Your task to perform on an android device: turn on data saver in the chrome app Image 0: 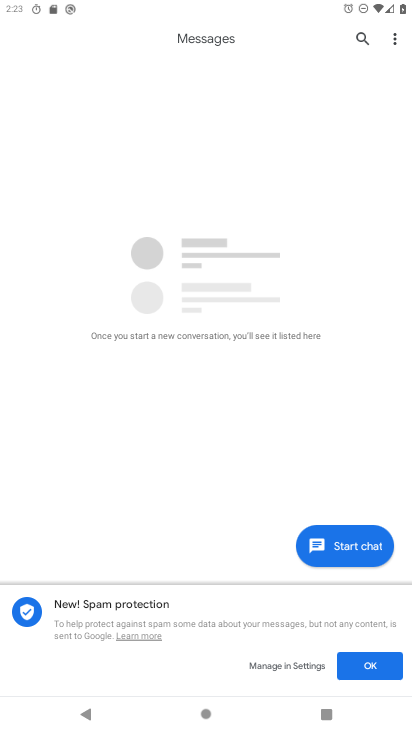
Step 0: press home button
Your task to perform on an android device: turn on data saver in the chrome app Image 1: 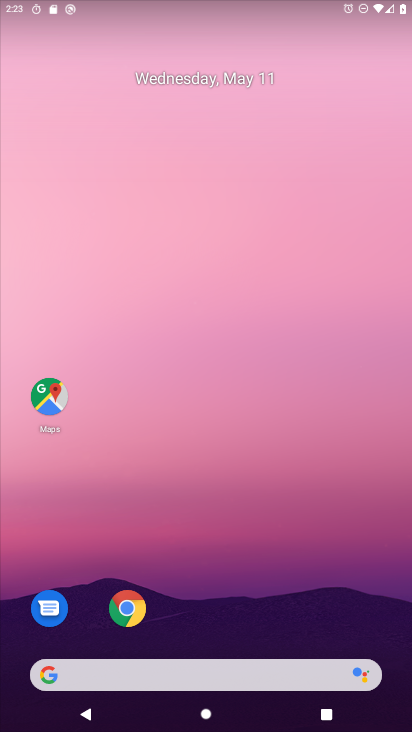
Step 1: drag from (269, 571) to (348, 46)
Your task to perform on an android device: turn on data saver in the chrome app Image 2: 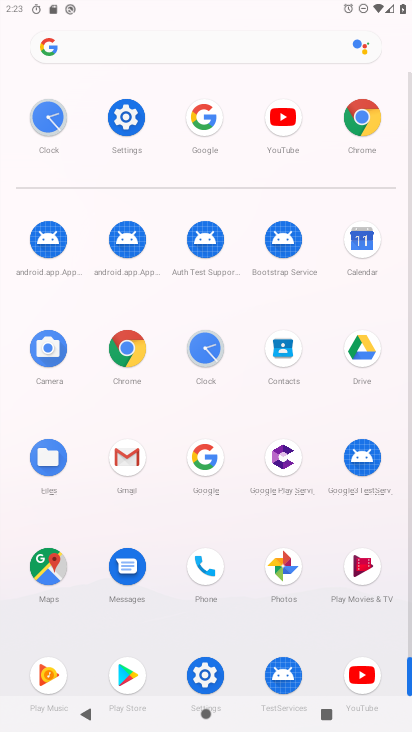
Step 2: click (369, 128)
Your task to perform on an android device: turn on data saver in the chrome app Image 3: 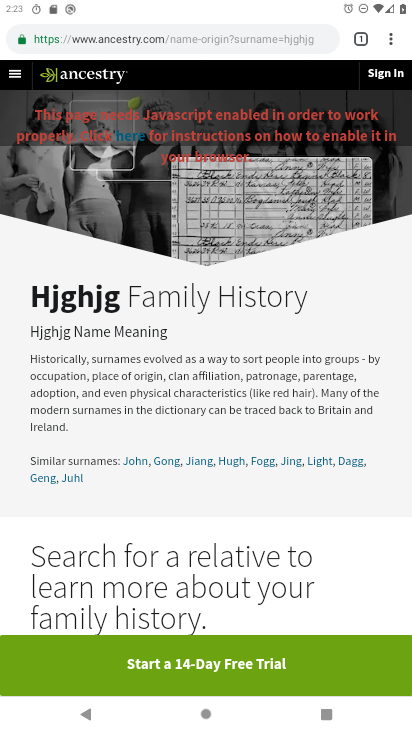
Step 3: click (388, 43)
Your task to perform on an android device: turn on data saver in the chrome app Image 4: 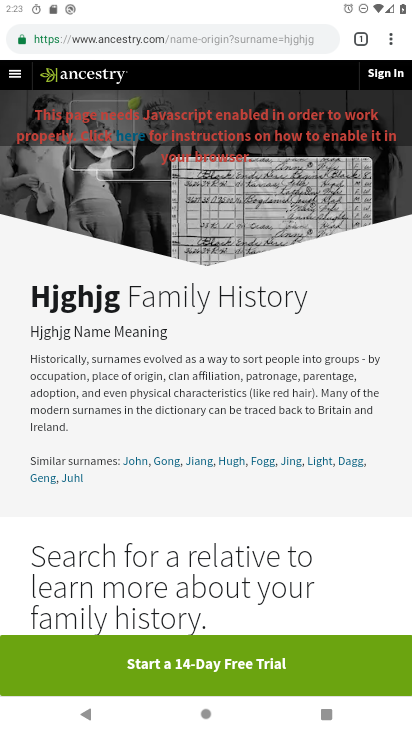
Step 4: click (388, 43)
Your task to perform on an android device: turn on data saver in the chrome app Image 5: 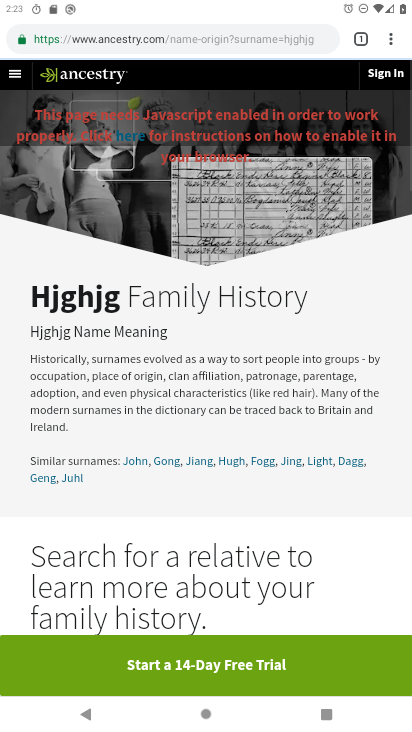
Step 5: click (396, 43)
Your task to perform on an android device: turn on data saver in the chrome app Image 6: 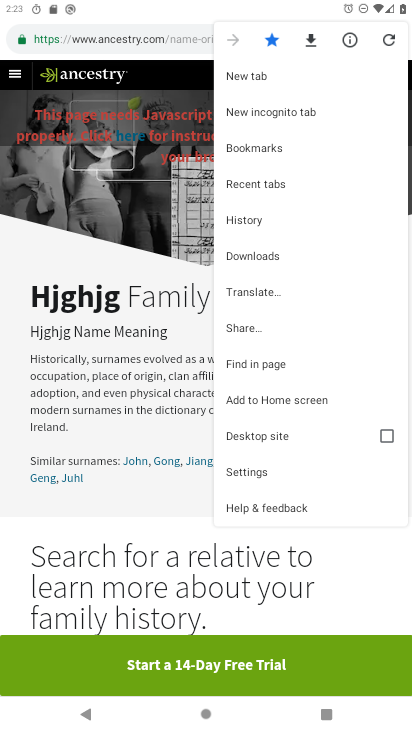
Step 6: click (259, 469)
Your task to perform on an android device: turn on data saver in the chrome app Image 7: 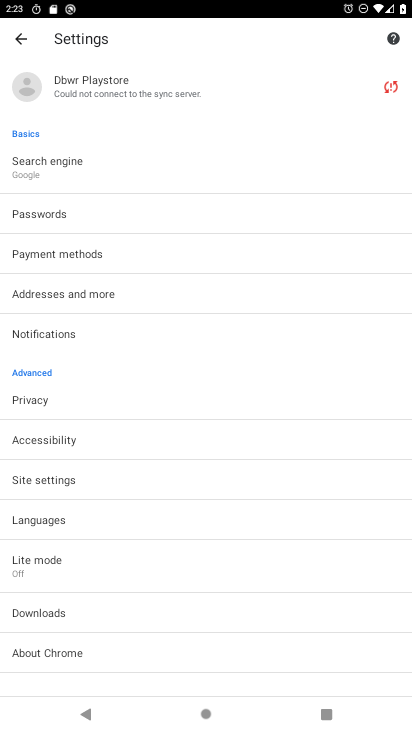
Step 7: drag from (186, 514) to (232, 224)
Your task to perform on an android device: turn on data saver in the chrome app Image 8: 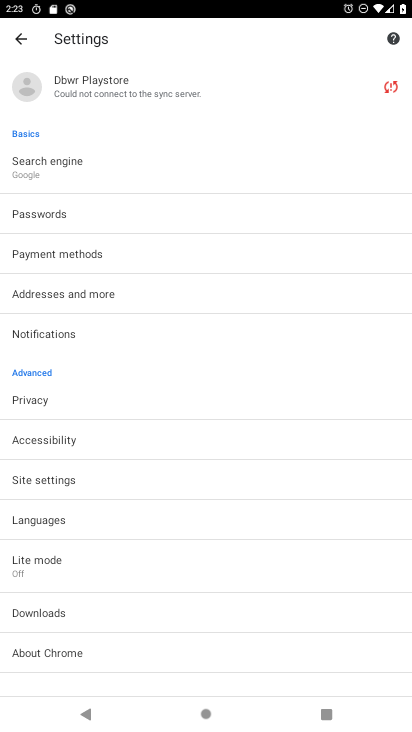
Step 8: click (43, 575)
Your task to perform on an android device: turn on data saver in the chrome app Image 9: 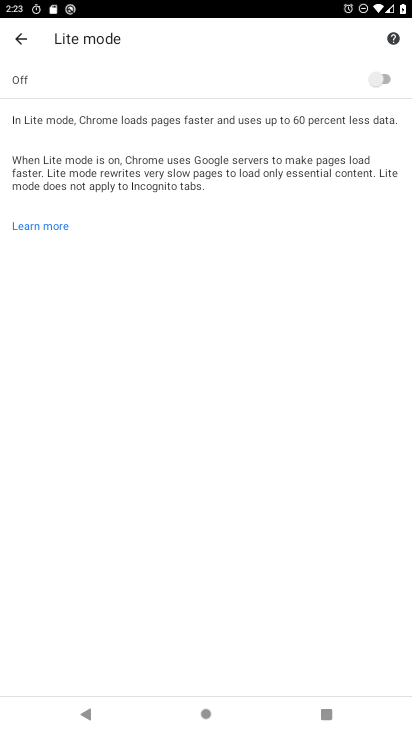
Step 9: click (383, 84)
Your task to perform on an android device: turn on data saver in the chrome app Image 10: 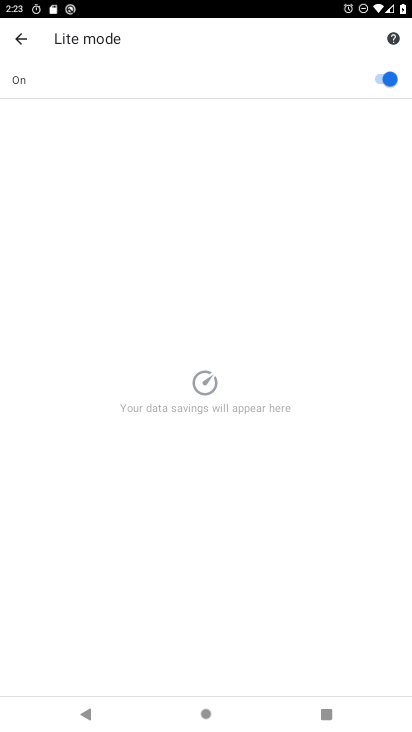
Step 10: task complete